Your task to perform on an android device: snooze an email in the gmail app Image 0: 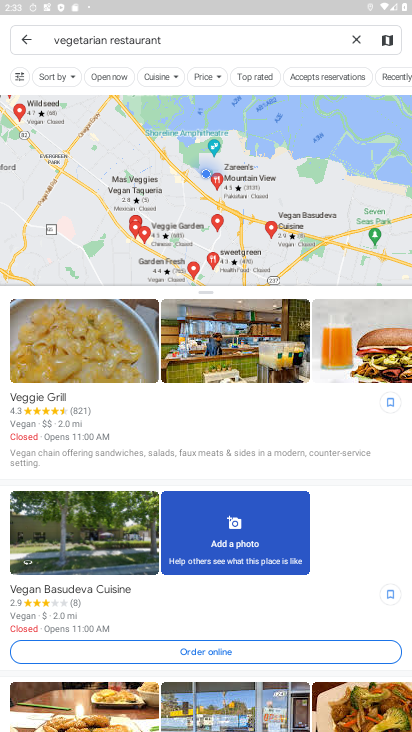
Step 0: press home button
Your task to perform on an android device: snooze an email in the gmail app Image 1: 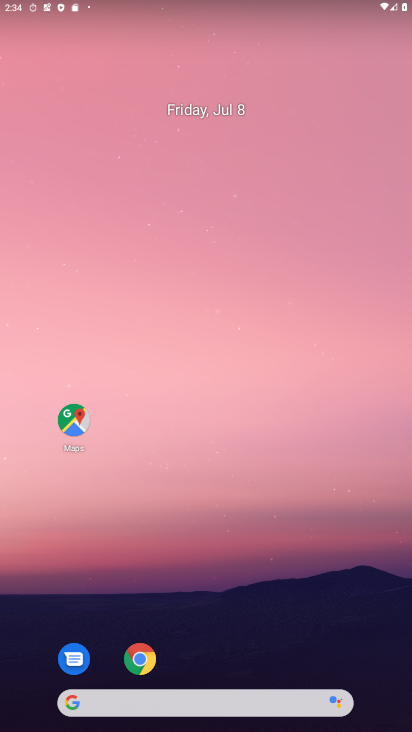
Step 1: click (266, 114)
Your task to perform on an android device: snooze an email in the gmail app Image 2: 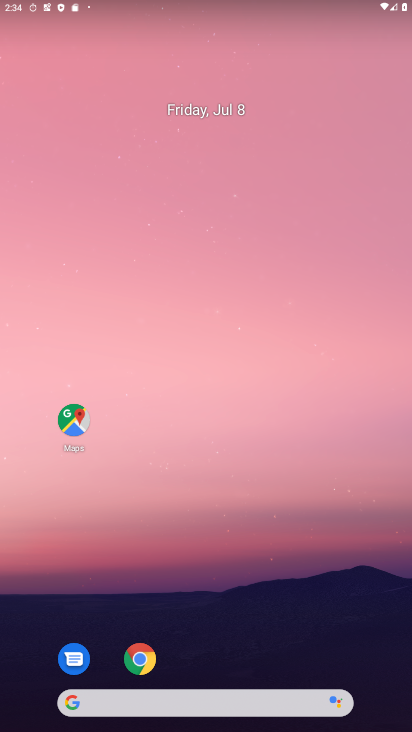
Step 2: drag from (260, 599) to (260, 276)
Your task to perform on an android device: snooze an email in the gmail app Image 3: 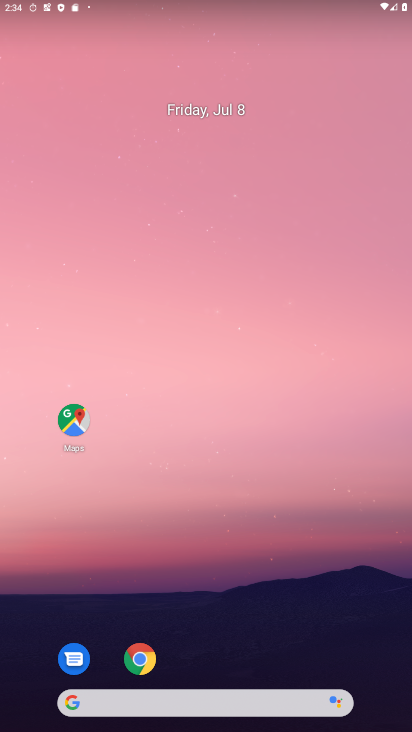
Step 3: drag from (285, 542) to (285, 92)
Your task to perform on an android device: snooze an email in the gmail app Image 4: 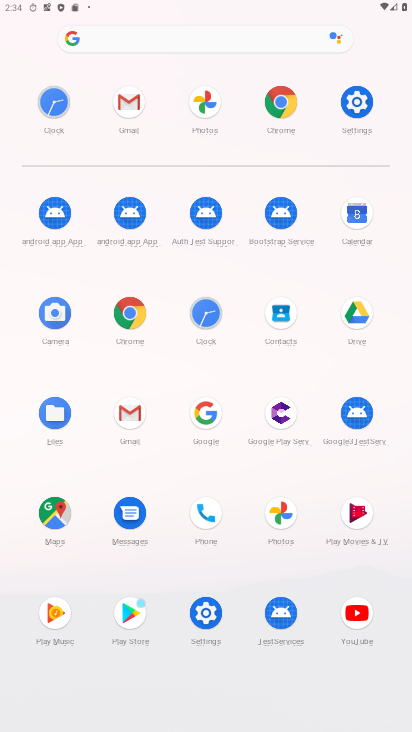
Step 4: click (132, 106)
Your task to perform on an android device: snooze an email in the gmail app Image 5: 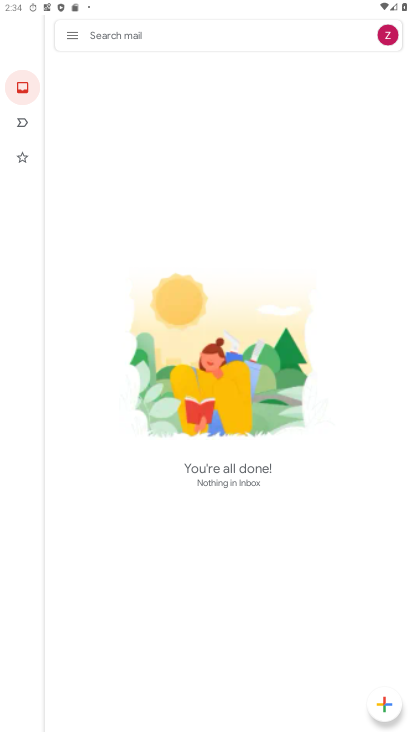
Step 5: click (72, 38)
Your task to perform on an android device: snooze an email in the gmail app Image 6: 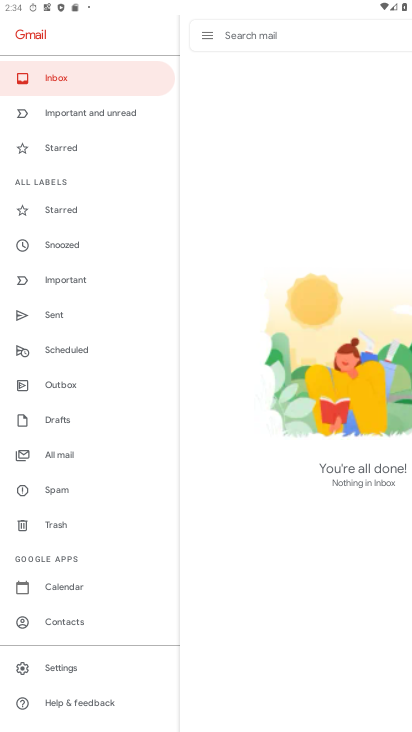
Step 6: click (79, 462)
Your task to perform on an android device: snooze an email in the gmail app Image 7: 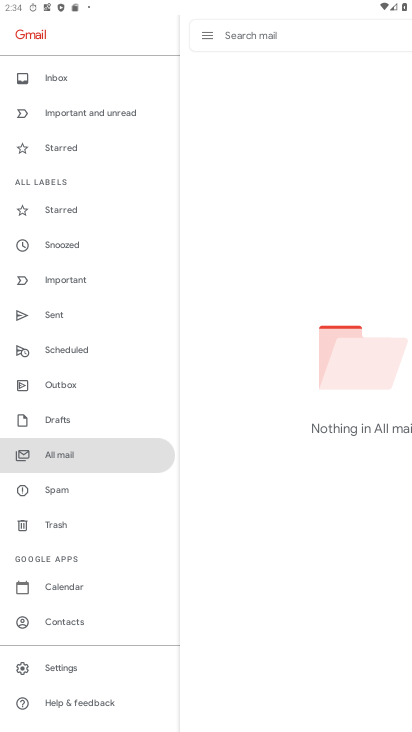
Step 7: task complete